Your task to perform on an android device: allow cookies in the chrome app Image 0: 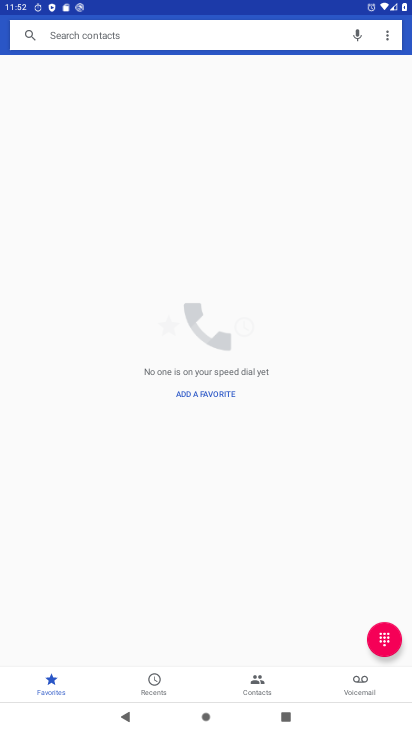
Step 0: press home button
Your task to perform on an android device: allow cookies in the chrome app Image 1: 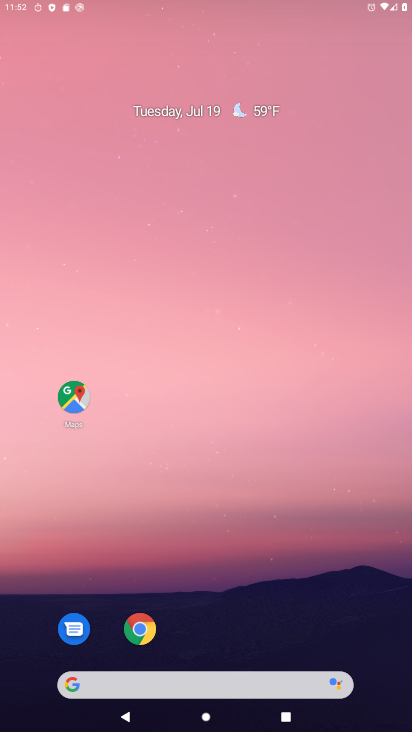
Step 1: drag from (253, 602) to (157, 0)
Your task to perform on an android device: allow cookies in the chrome app Image 2: 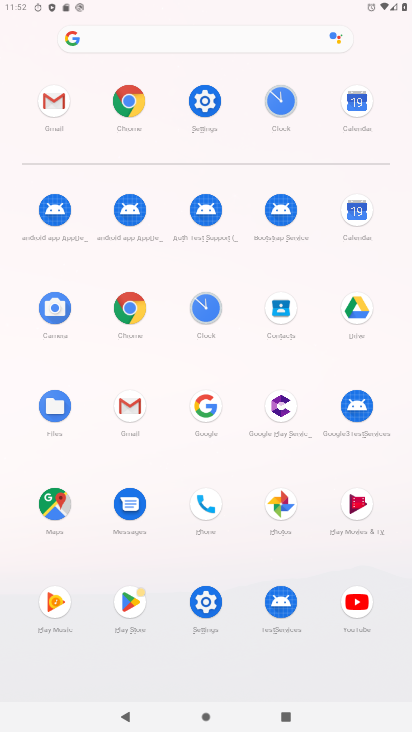
Step 2: click (129, 104)
Your task to perform on an android device: allow cookies in the chrome app Image 3: 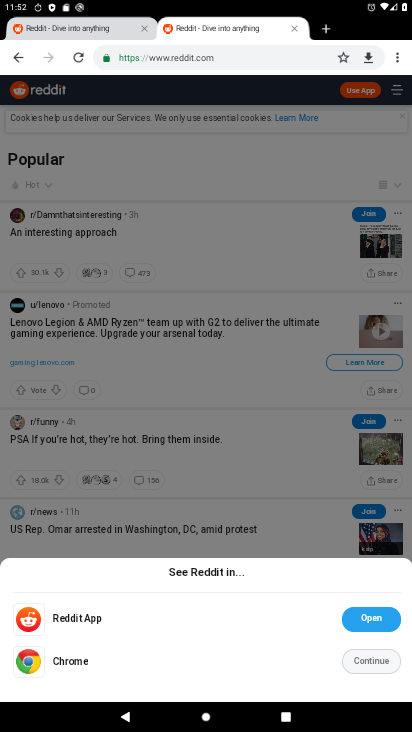
Step 3: drag from (395, 52) to (267, 387)
Your task to perform on an android device: allow cookies in the chrome app Image 4: 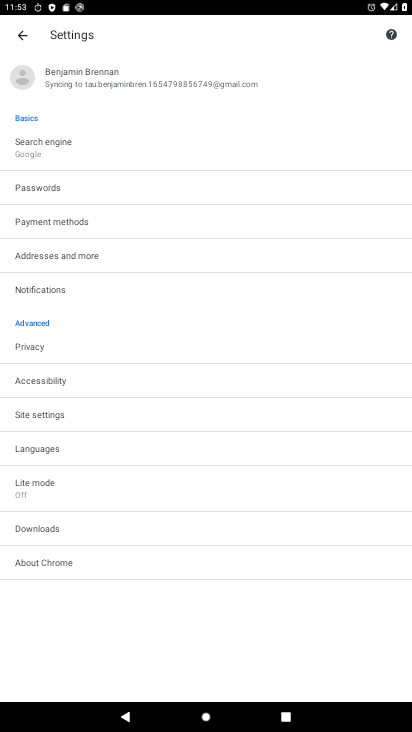
Step 4: click (65, 419)
Your task to perform on an android device: allow cookies in the chrome app Image 5: 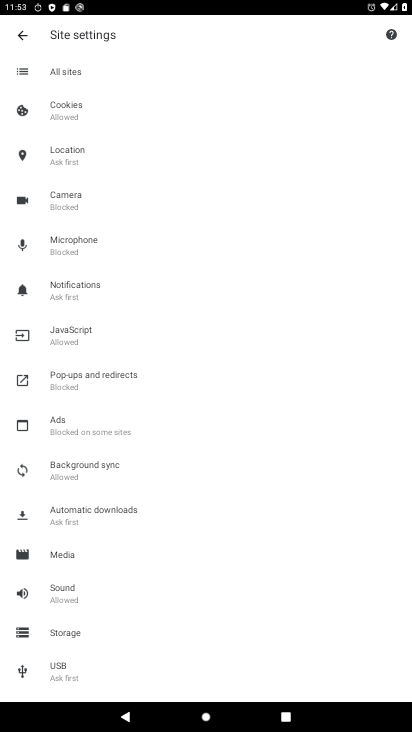
Step 5: click (76, 101)
Your task to perform on an android device: allow cookies in the chrome app Image 6: 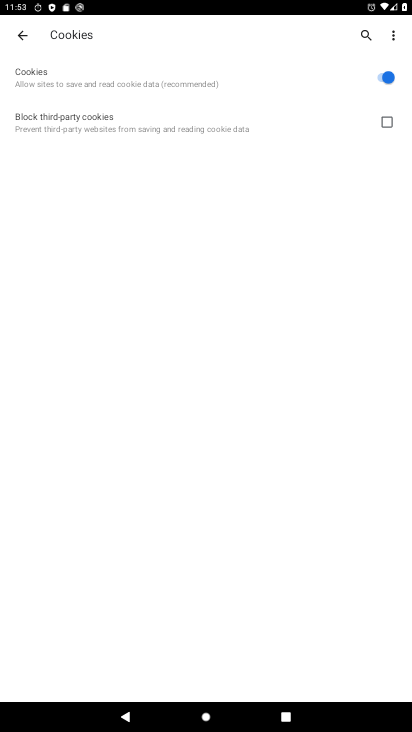
Step 6: task complete